Your task to perform on an android device: turn off translation in the chrome app Image 0: 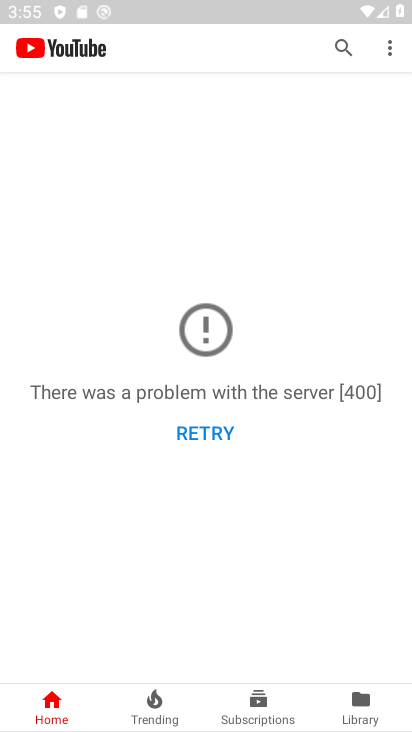
Step 0: press home button
Your task to perform on an android device: turn off translation in the chrome app Image 1: 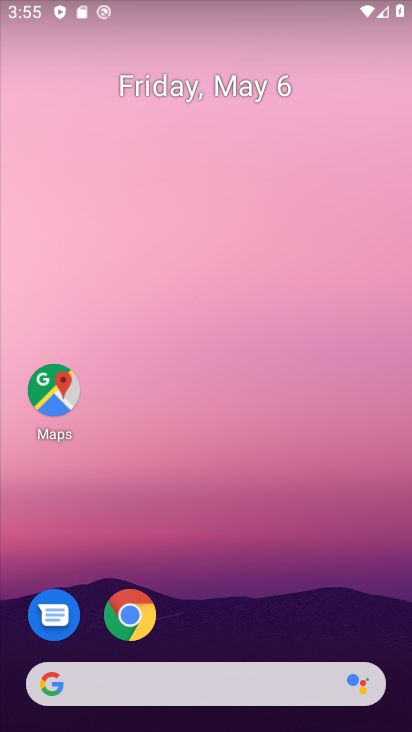
Step 1: click (142, 608)
Your task to perform on an android device: turn off translation in the chrome app Image 2: 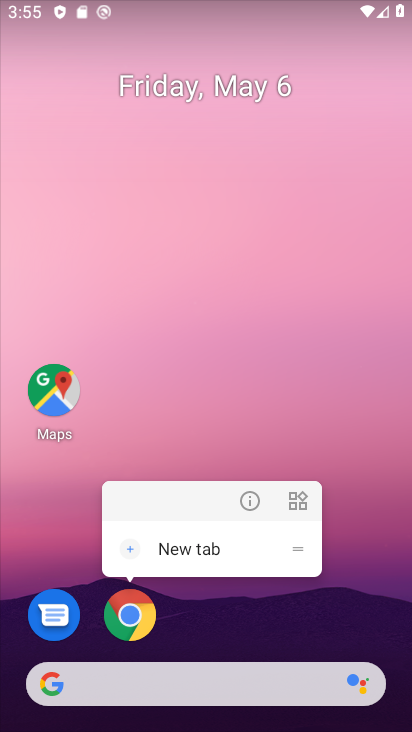
Step 2: click (123, 613)
Your task to perform on an android device: turn off translation in the chrome app Image 3: 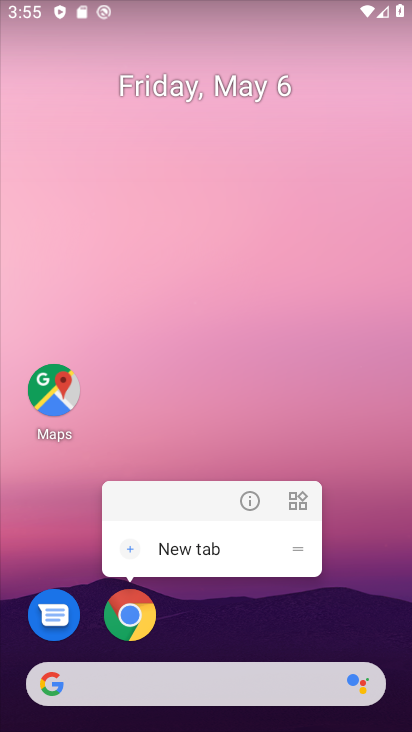
Step 3: click (121, 623)
Your task to perform on an android device: turn off translation in the chrome app Image 4: 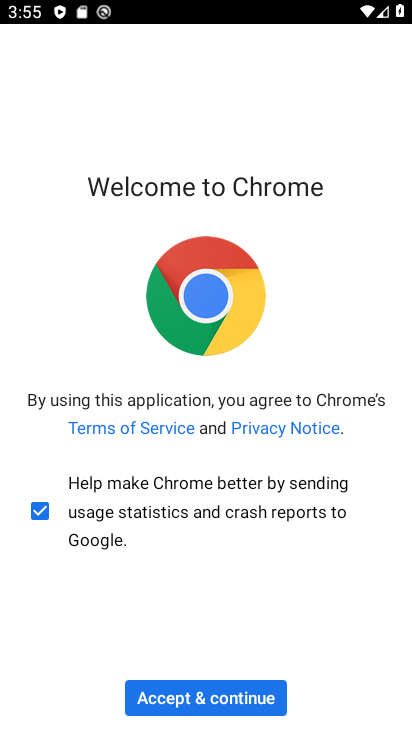
Step 4: click (178, 713)
Your task to perform on an android device: turn off translation in the chrome app Image 5: 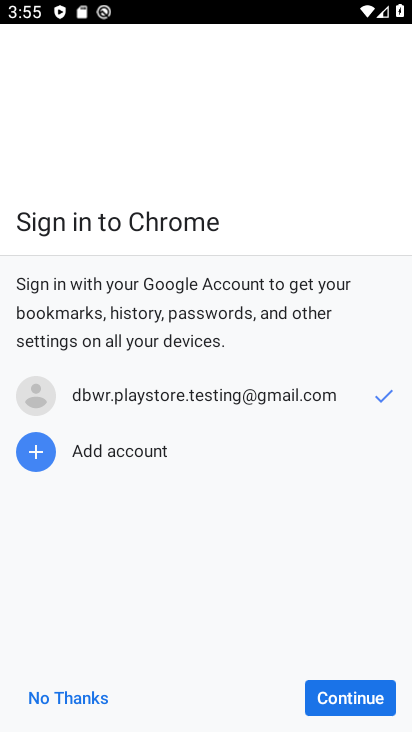
Step 5: click (356, 707)
Your task to perform on an android device: turn off translation in the chrome app Image 6: 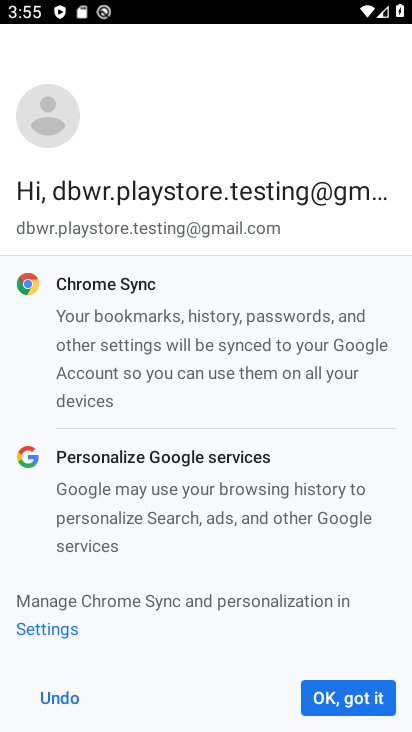
Step 6: click (365, 694)
Your task to perform on an android device: turn off translation in the chrome app Image 7: 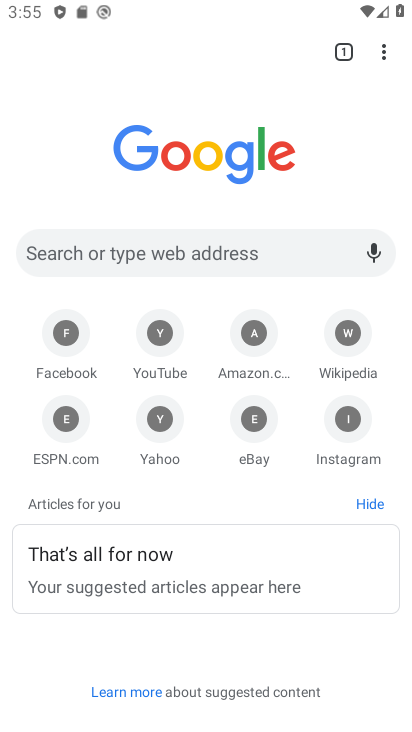
Step 7: click (388, 50)
Your task to perform on an android device: turn off translation in the chrome app Image 8: 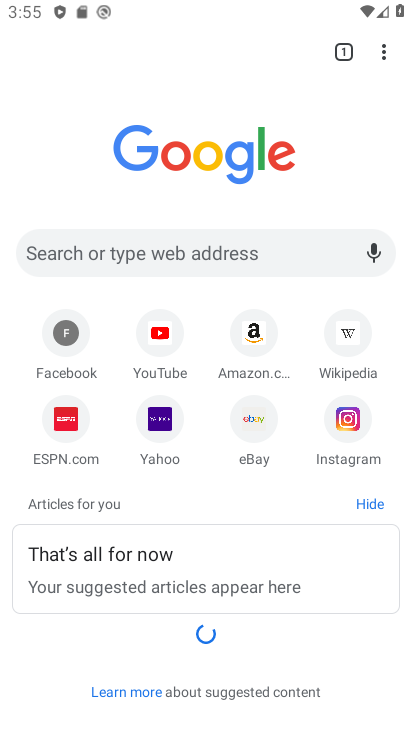
Step 8: drag from (379, 50) to (220, 425)
Your task to perform on an android device: turn off translation in the chrome app Image 9: 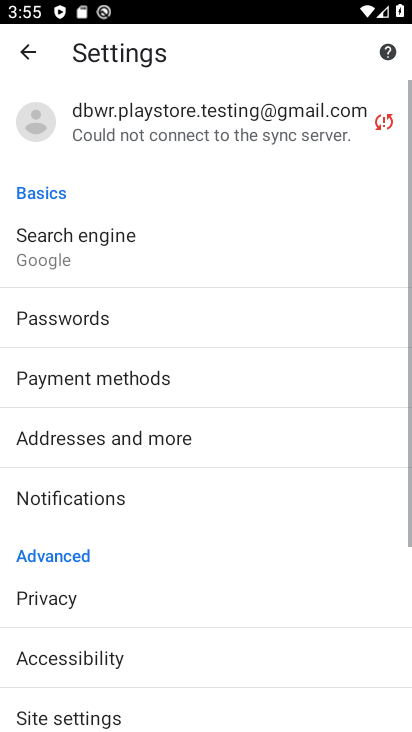
Step 9: drag from (201, 525) to (163, 59)
Your task to perform on an android device: turn off translation in the chrome app Image 10: 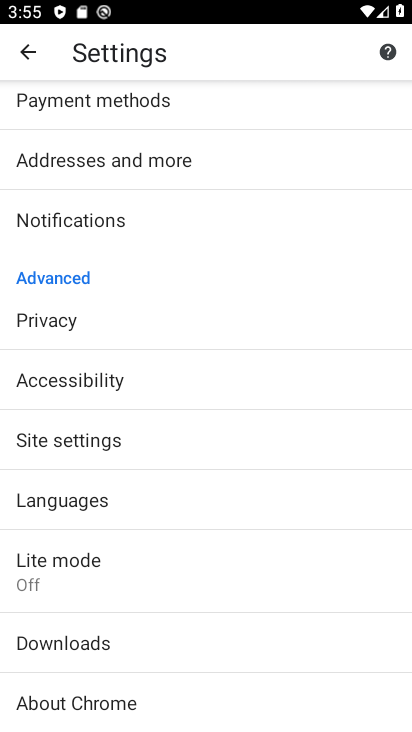
Step 10: click (67, 510)
Your task to perform on an android device: turn off translation in the chrome app Image 11: 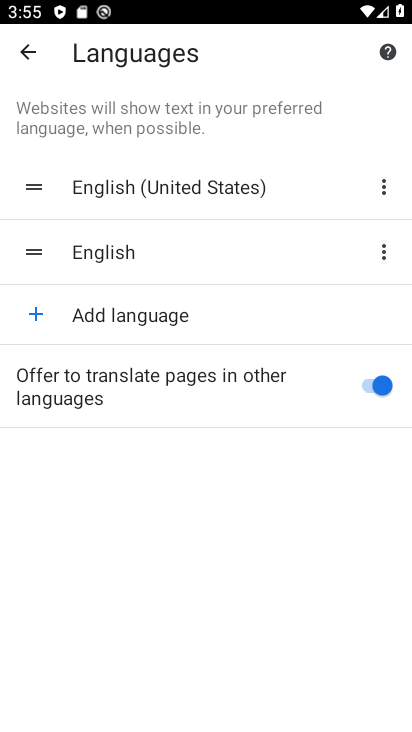
Step 11: click (390, 392)
Your task to perform on an android device: turn off translation in the chrome app Image 12: 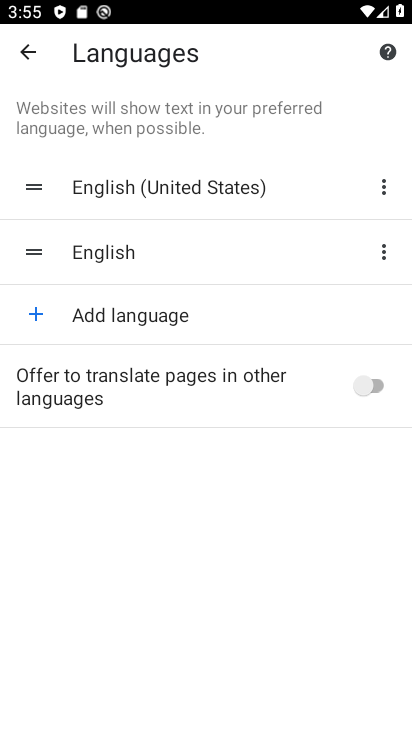
Step 12: task complete